Your task to perform on an android device: Is it going to rain tomorrow? Image 0: 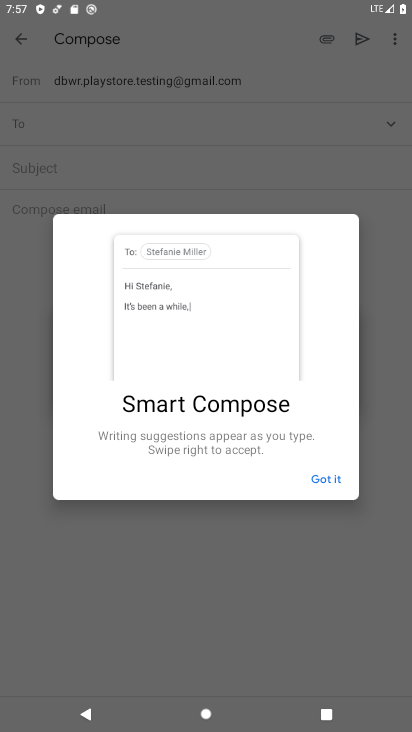
Step 0: press home button
Your task to perform on an android device: Is it going to rain tomorrow? Image 1: 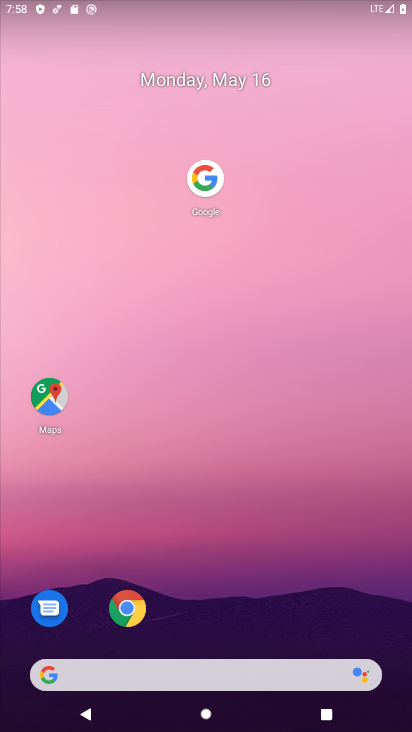
Step 1: drag from (218, 602) to (260, 137)
Your task to perform on an android device: Is it going to rain tomorrow? Image 2: 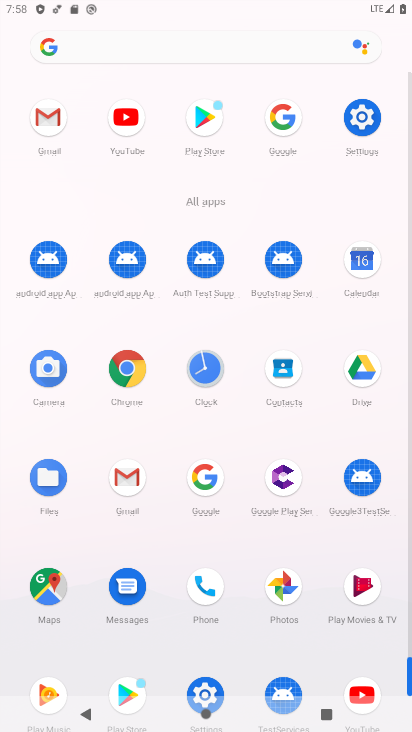
Step 2: click (281, 117)
Your task to perform on an android device: Is it going to rain tomorrow? Image 3: 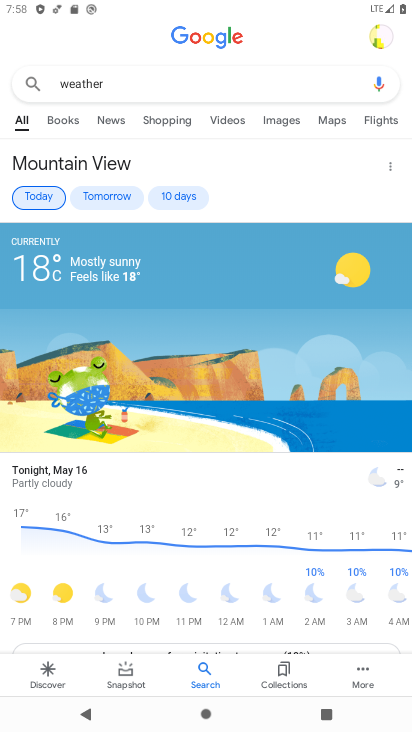
Step 3: click (115, 196)
Your task to perform on an android device: Is it going to rain tomorrow? Image 4: 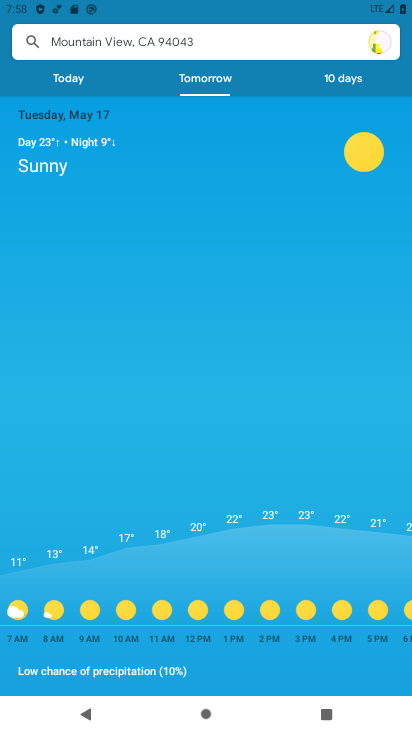
Step 4: task complete